Your task to perform on an android device: Go to location settings Image 0: 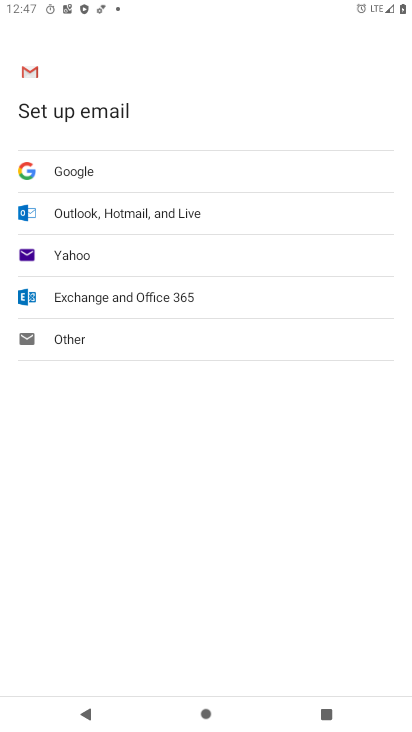
Step 0: press home button
Your task to perform on an android device: Go to location settings Image 1: 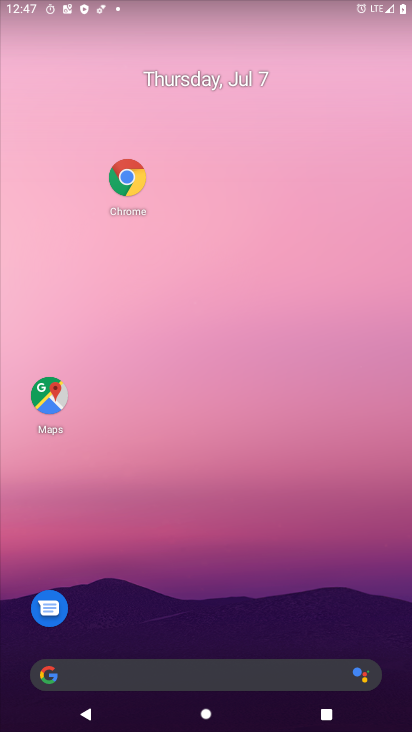
Step 1: drag from (169, 580) to (197, 272)
Your task to perform on an android device: Go to location settings Image 2: 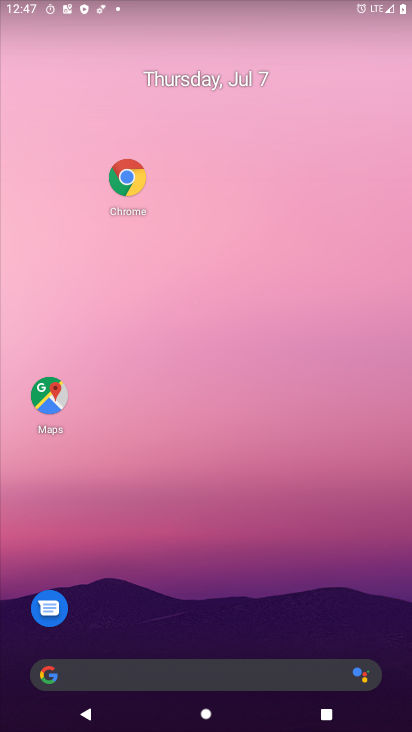
Step 2: drag from (166, 677) to (242, 227)
Your task to perform on an android device: Go to location settings Image 3: 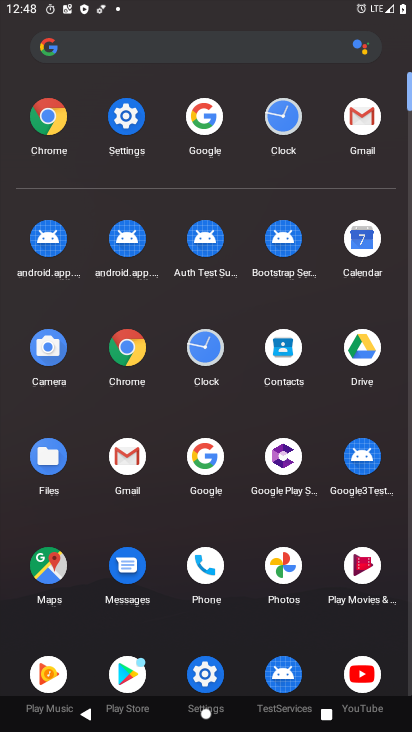
Step 3: click (114, 118)
Your task to perform on an android device: Go to location settings Image 4: 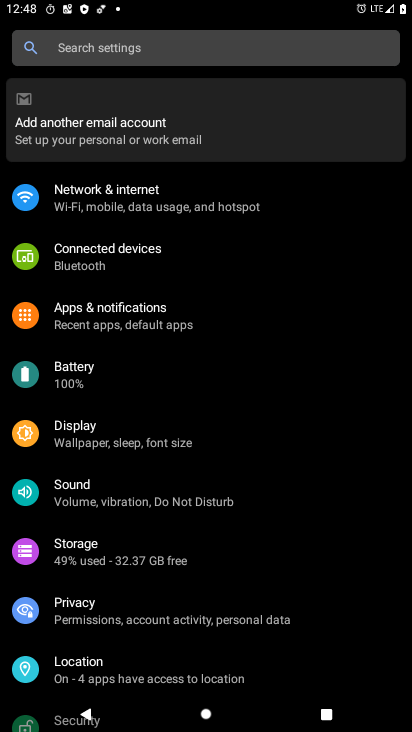
Step 4: click (97, 672)
Your task to perform on an android device: Go to location settings Image 5: 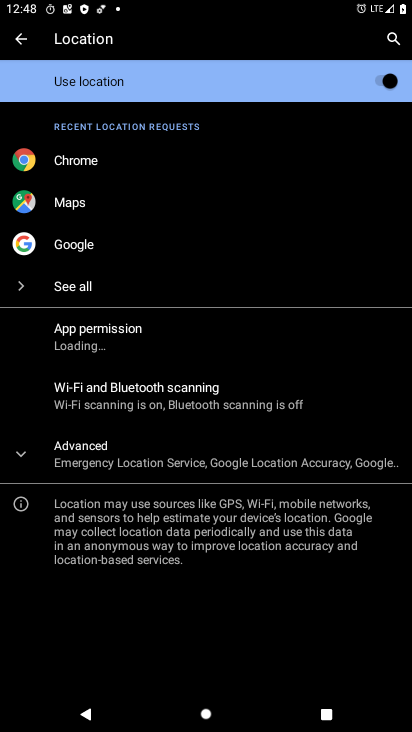
Step 5: click (94, 455)
Your task to perform on an android device: Go to location settings Image 6: 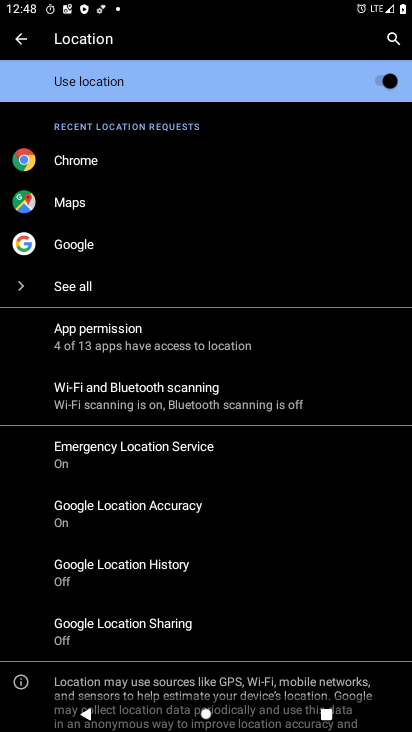
Step 6: task complete